Your task to perform on an android device: change the clock display to show seconds Image 0: 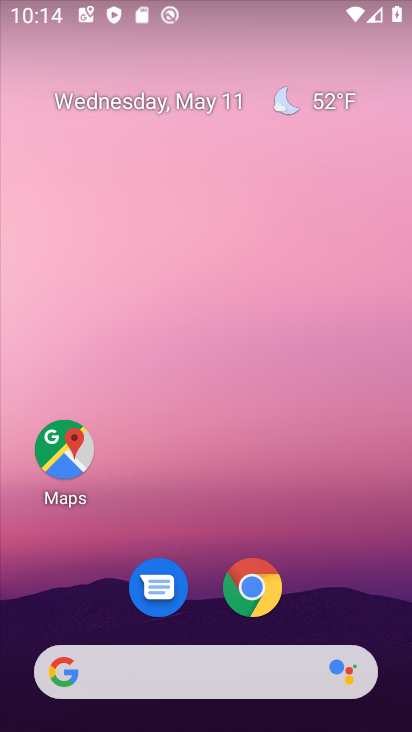
Step 0: drag from (307, 701) to (236, 332)
Your task to perform on an android device: change the clock display to show seconds Image 1: 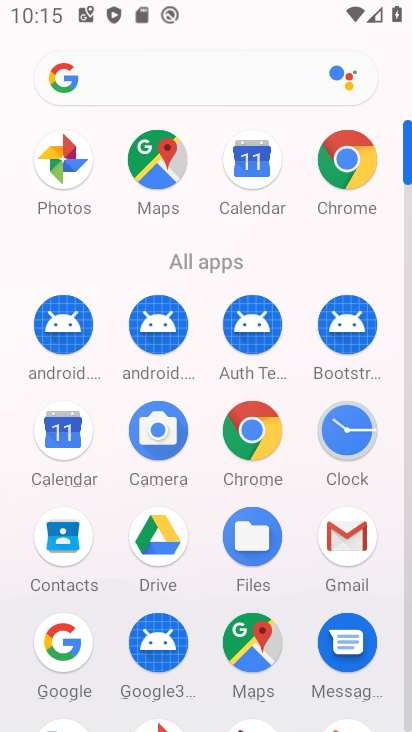
Step 1: click (348, 431)
Your task to perform on an android device: change the clock display to show seconds Image 2: 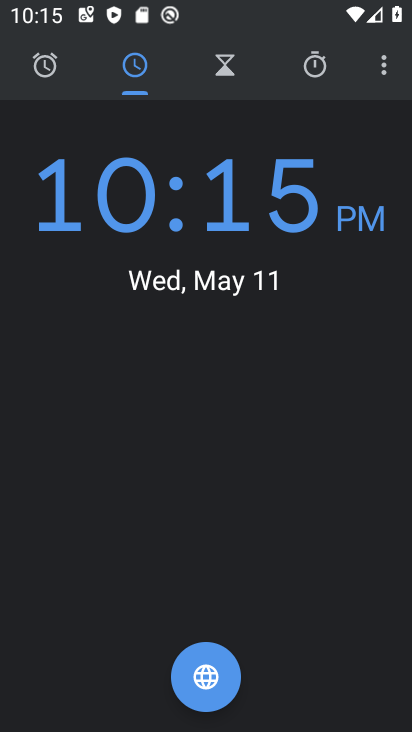
Step 2: click (383, 90)
Your task to perform on an android device: change the clock display to show seconds Image 3: 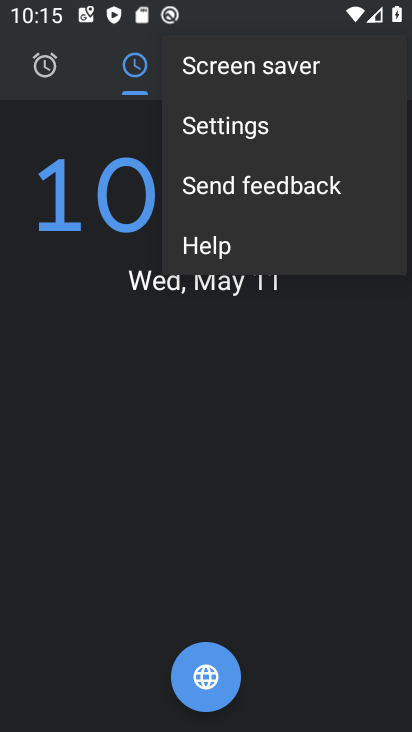
Step 3: click (254, 119)
Your task to perform on an android device: change the clock display to show seconds Image 4: 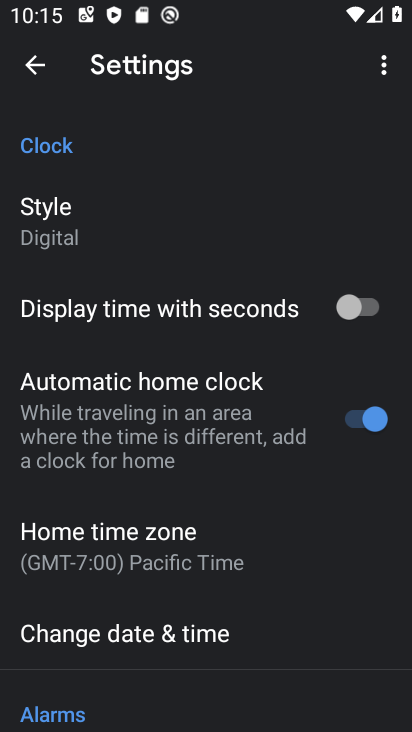
Step 4: click (347, 324)
Your task to perform on an android device: change the clock display to show seconds Image 5: 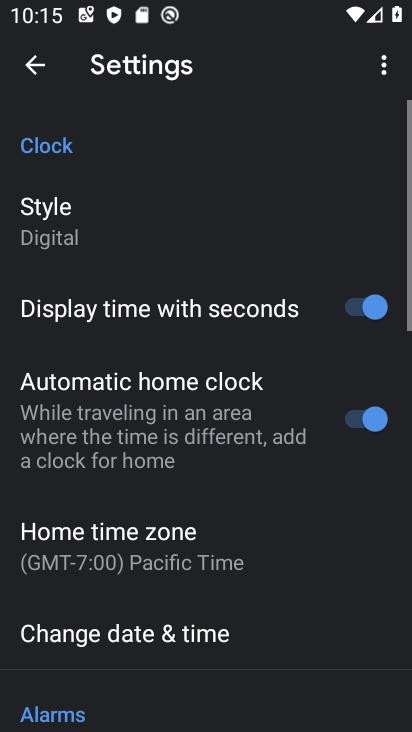
Step 5: task complete